Your task to perform on an android device: open a bookmark in the chrome app Image 0: 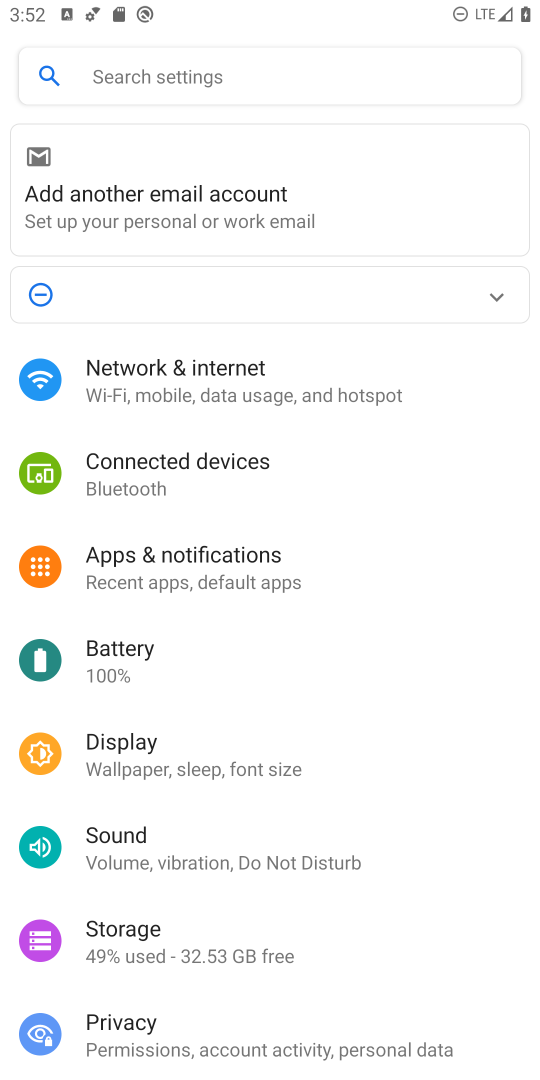
Step 0: drag from (220, 911) to (276, 603)
Your task to perform on an android device: open a bookmark in the chrome app Image 1: 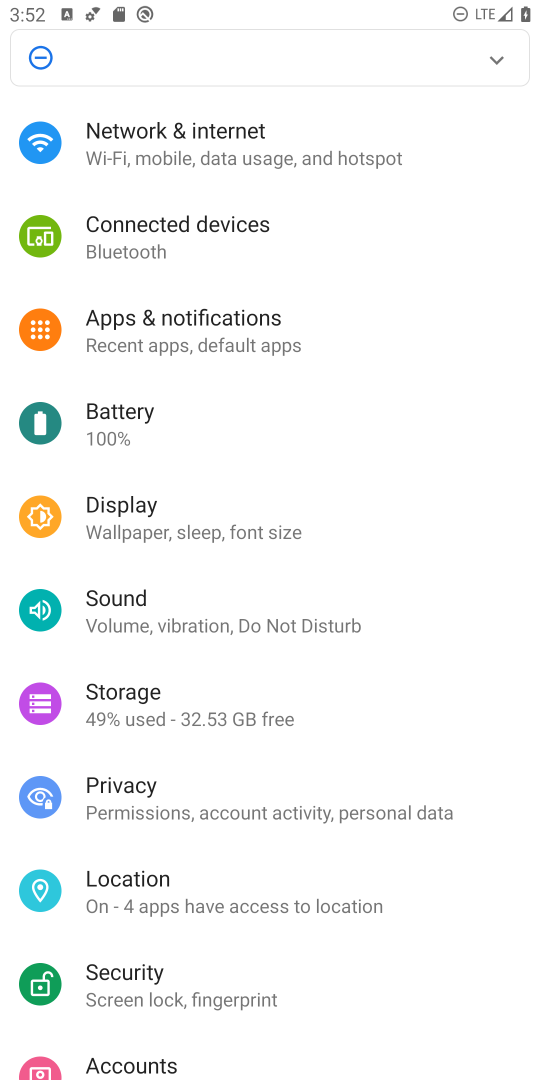
Step 1: drag from (290, 989) to (337, 738)
Your task to perform on an android device: open a bookmark in the chrome app Image 2: 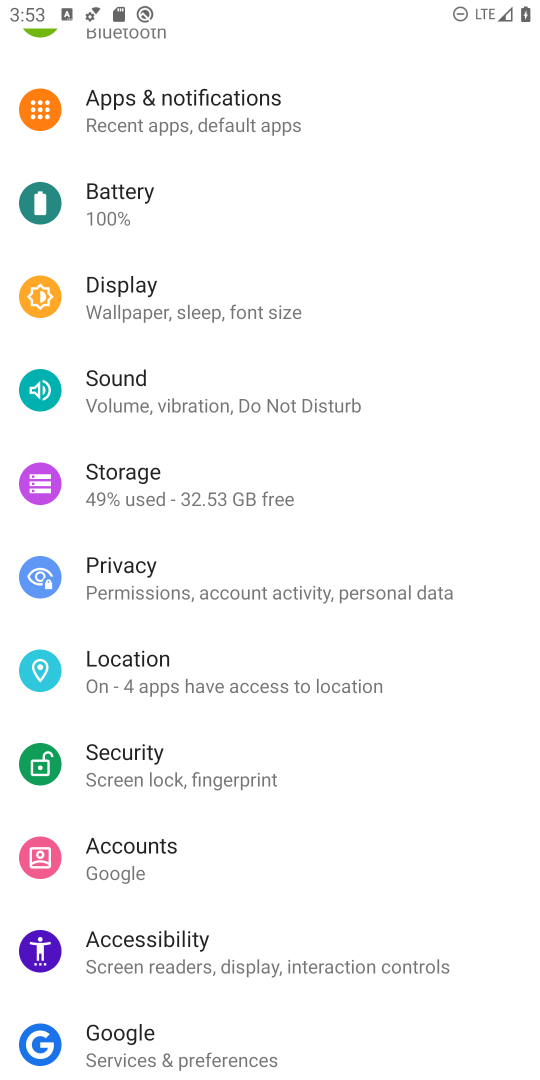
Step 2: press home button
Your task to perform on an android device: open a bookmark in the chrome app Image 3: 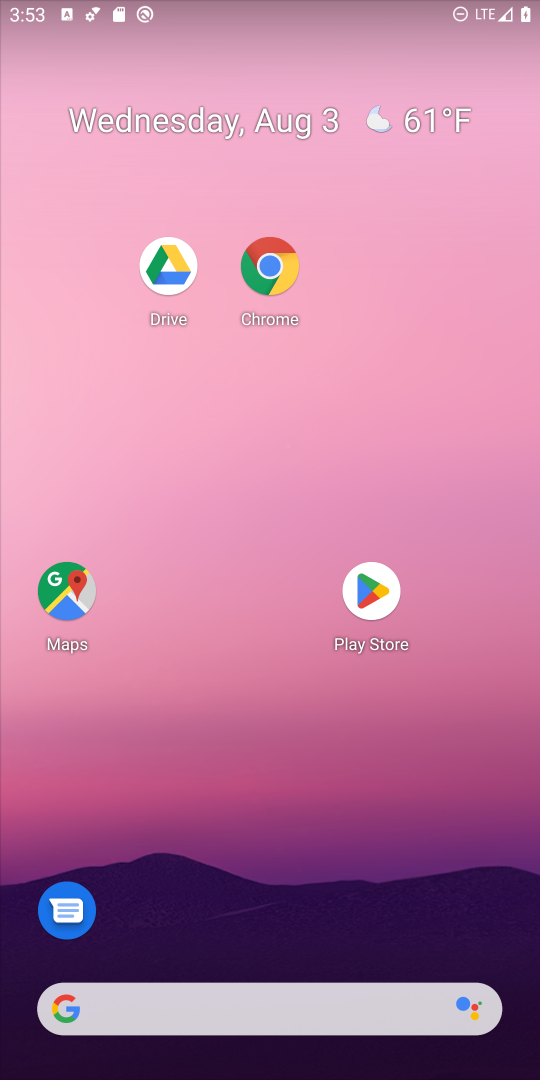
Step 3: drag from (288, 993) to (412, 54)
Your task to perform on an android device: open a bookmark in the chrome app Image 4: 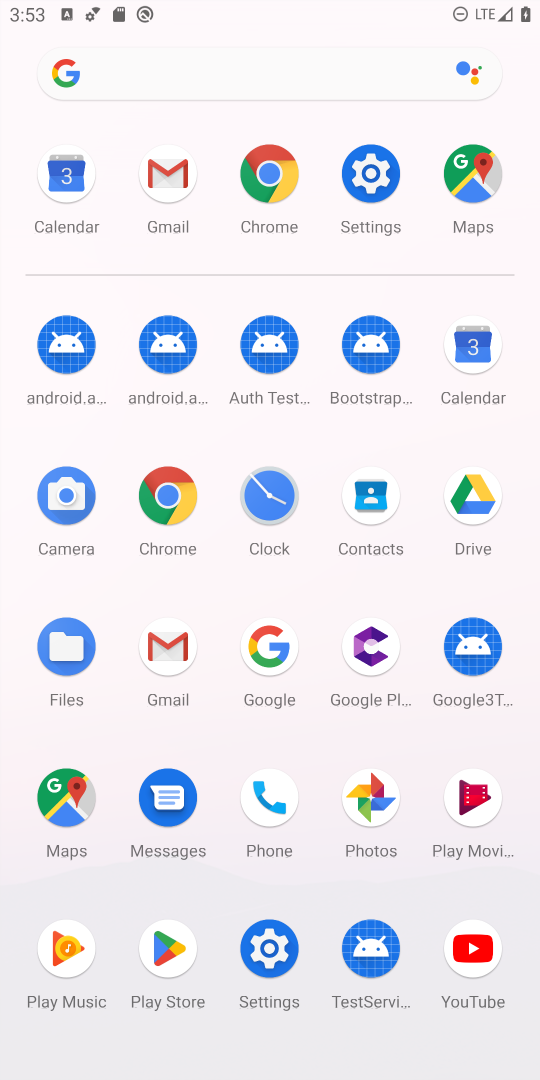
Step 4: click (171, 480)
Your task to perform on an android device: open a bookmark in the chrome app Image 5: 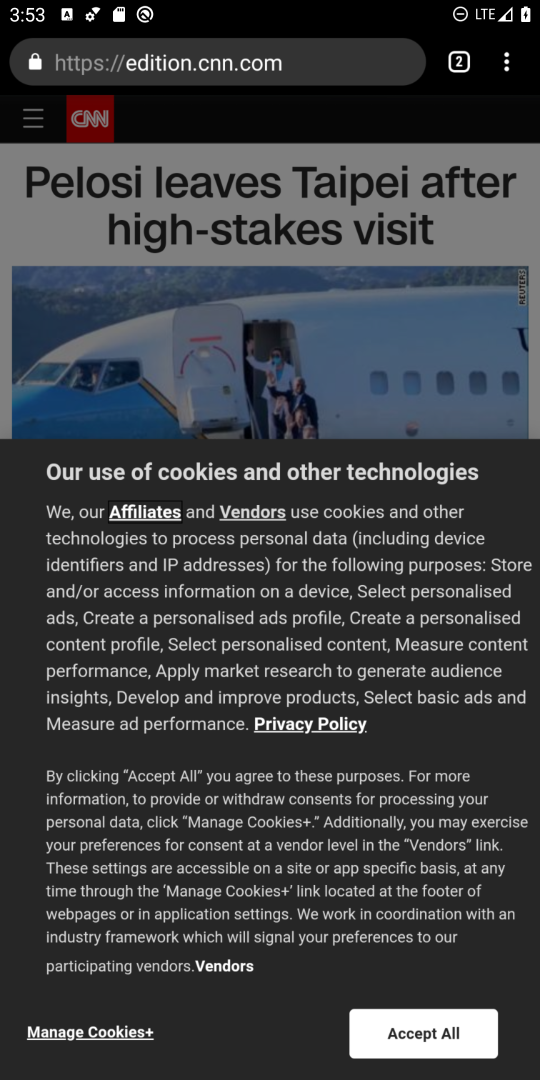
Step 5: task complete